Your task to perform on an android device: Go to location settings Image 0: 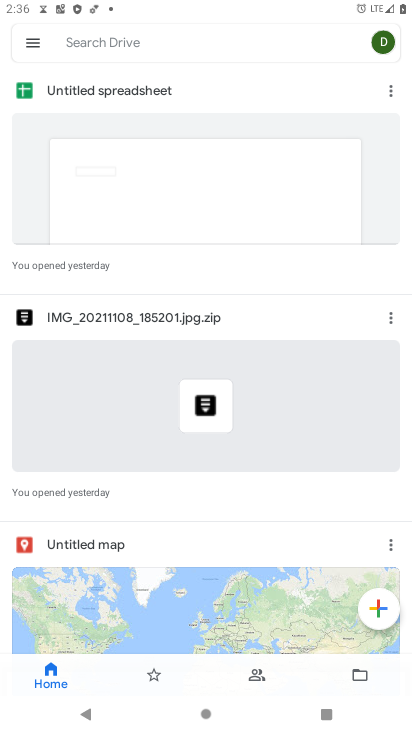
Step 0: press home button
Your task to perform on an android device: Go to location settings Image 1: 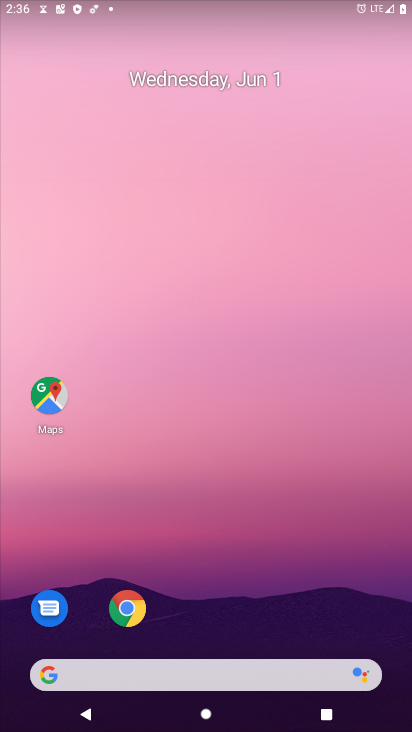
Step 1: drag from (211, 561) to (329, 66)
Your task to perform on an android device: Go to location settings Image 2: 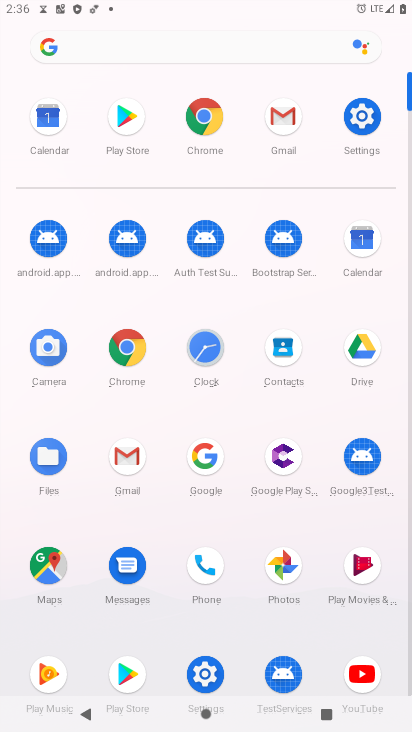
Step 2: click (379, 106)
Your task to perform on an android device: Go to location settings Image 3: 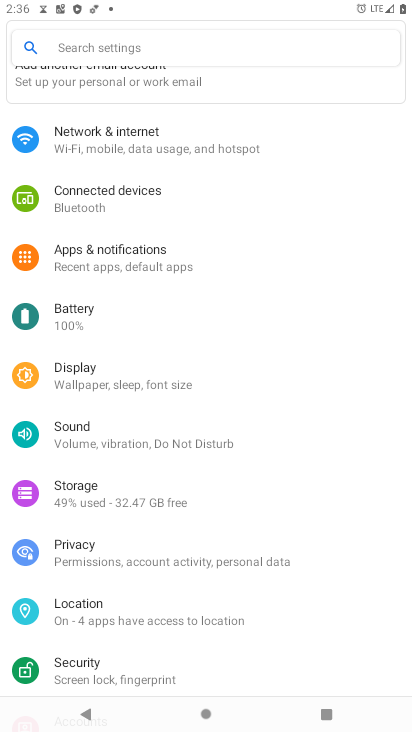
Step 3: click (85, 596)
Your task to perform on an android device: Go to location settings Image 4: 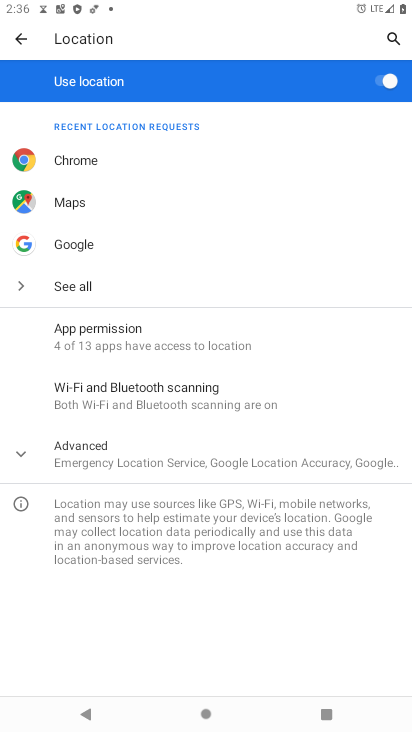
Step 4: task complete